Your task to perform on an android device: turn on notifications settings in the gmail app Image 0: 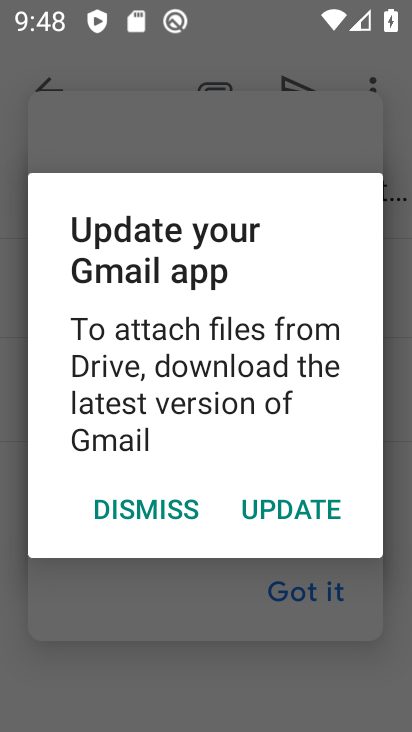
Step 0: press home button
Your task to perform on an android device: turn on notifications settings in the gmail app Image 1: 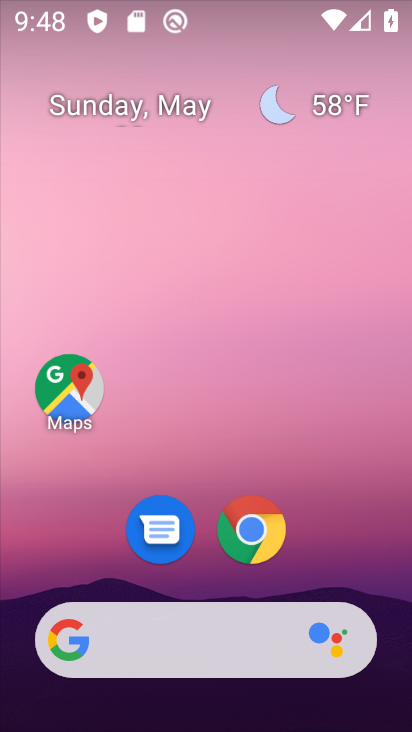
Step 1: drag from (207, 587) to (194, 7)
Your task to perform on an android device: turn on notifications settings in the gmail app Image 2: 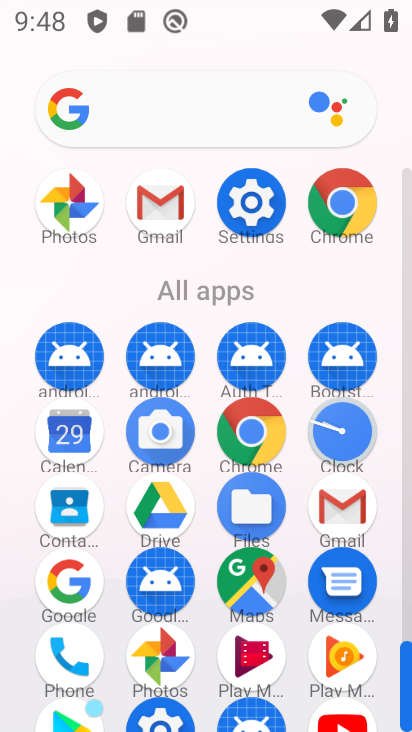
Step 2: click (330, 501)
Your task to perform on an android device: turn on notifications settings in the gmail app Image 3: 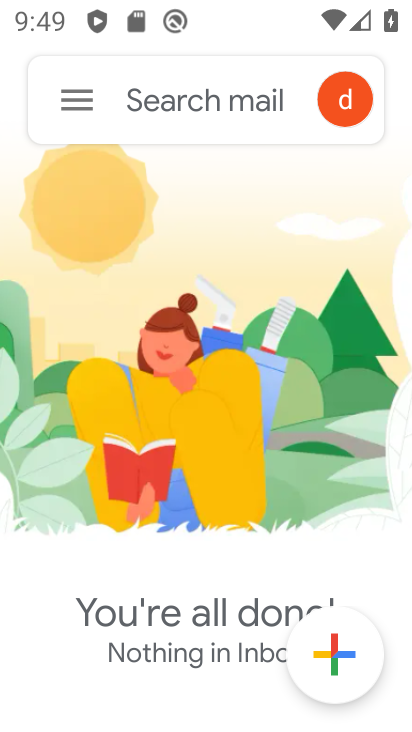
Step 3: click (85, 105)
Your task to perform on an android device: turn on notifications settings in the gmail app Image 4: 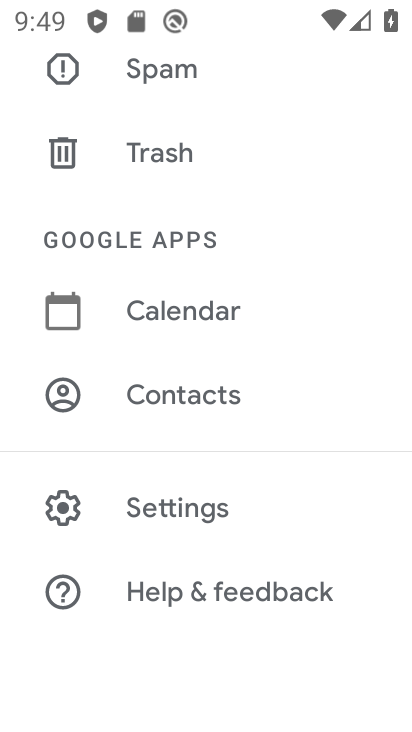
Step 4: click (158, 512)
Your task to perform on an android device: turn on notifications settings in the gmail app Image 5: 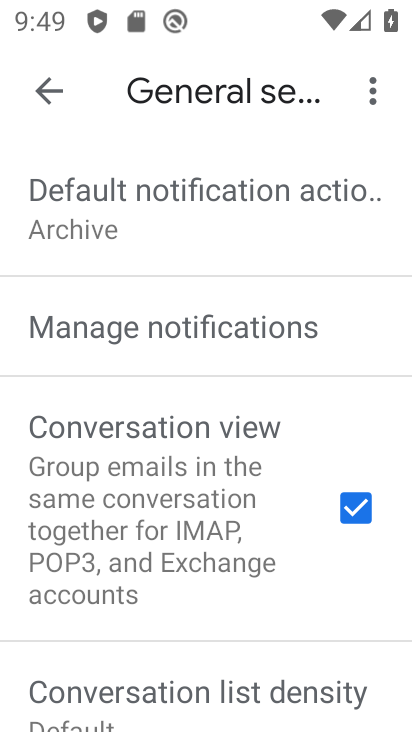
Step 5: click (188, 327)
Your task to perform on an android device: turn on notifications settings in the gmail app Image 6: 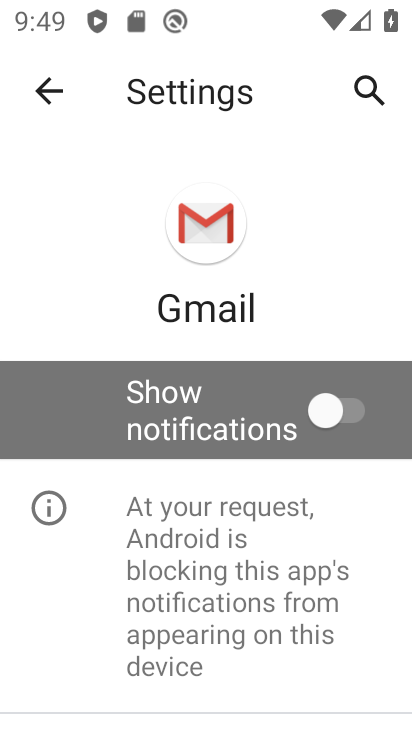
Step 6: click (365, 387)
Your task to perform on an android device: turn on notifications settings in the gmail app Image 7: 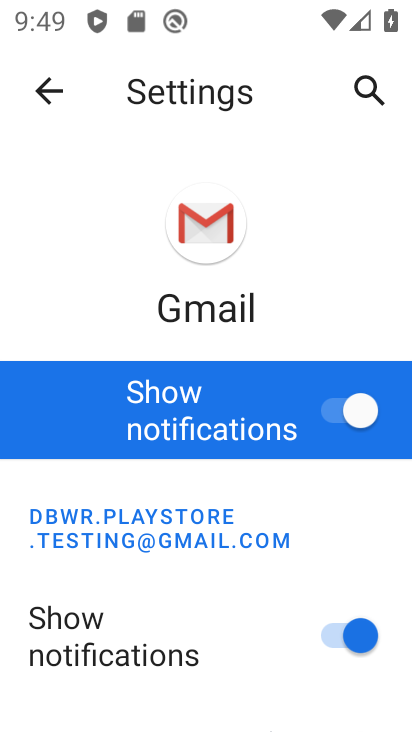
Step 7: task complete